Your task to perform on an android device: turn on location history Image 0: 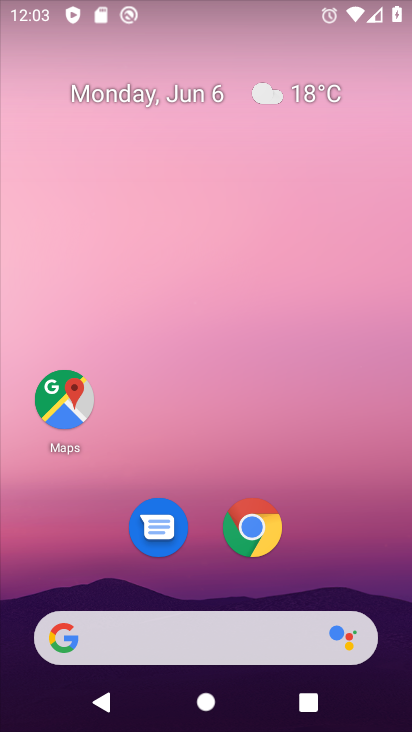
Step 0: drag from (230, 590) to (341, 15)
Your task to perform on an android device: turn on location history Image 1: 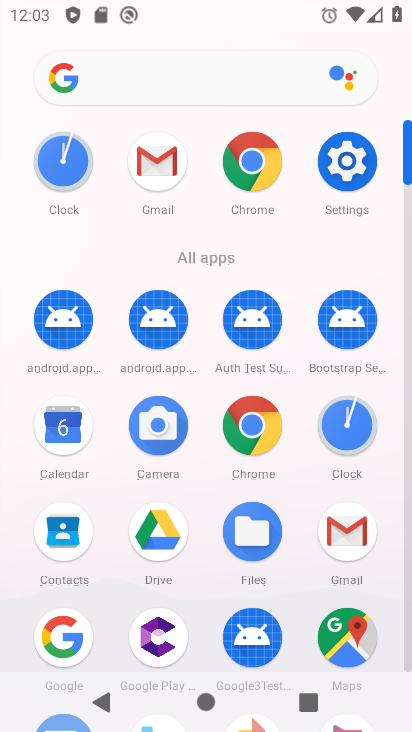
Step 1: click (344, 161)
Your task to perform on an android device: turn on location history Image 2: 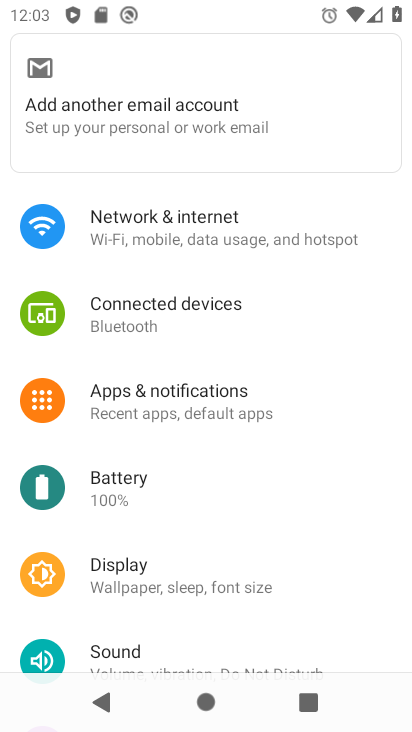
Step 2: drag from (190, 537) to (208, 80)
Your task to perform on an android device: turn on location history Image 3: 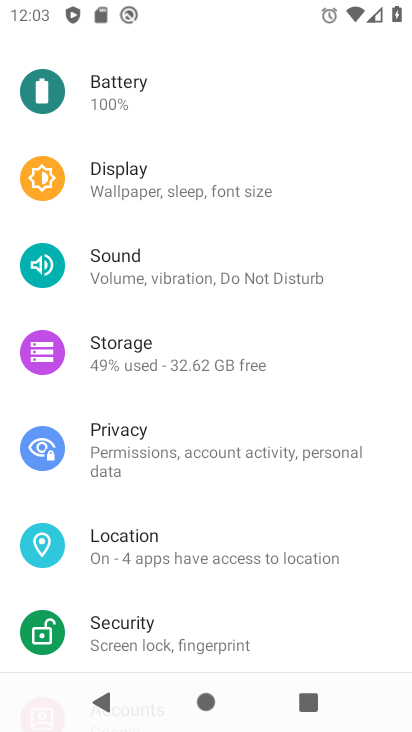
Step 3: click (79, 548)
Your task to perform on an android device: turn on location history Image 4: 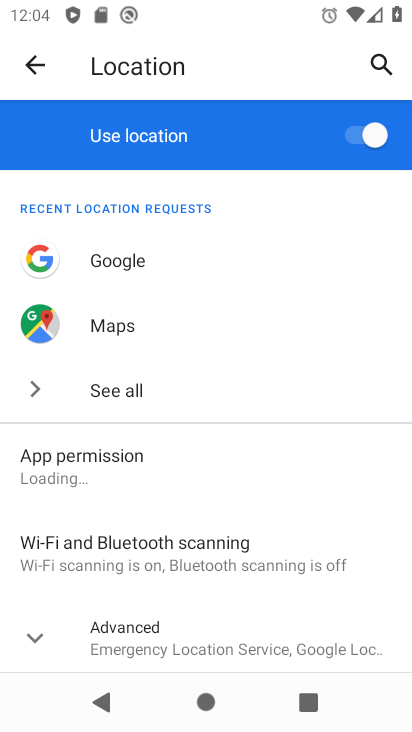
Step 4: click (190, 642)
Your task to perform on an android device: turn on location history Image 5: 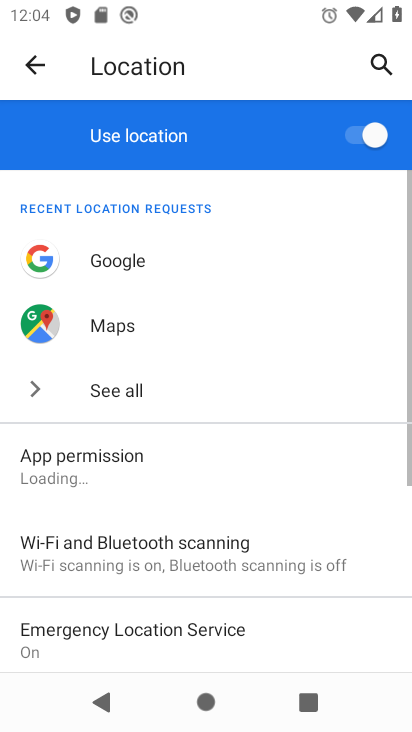
Step 5: drag from (197, 624) to (127, 98)
Your task to perform on an android device: turn on location history Image 6: 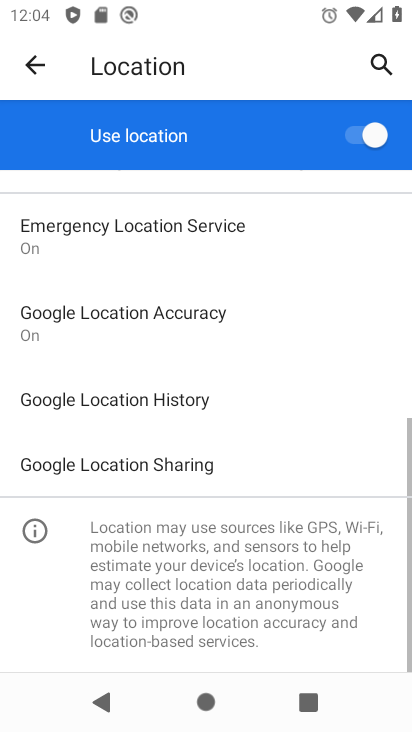
Step 6: click (163, 410)
Your task to perform on an android device: turn on location history Image 7: 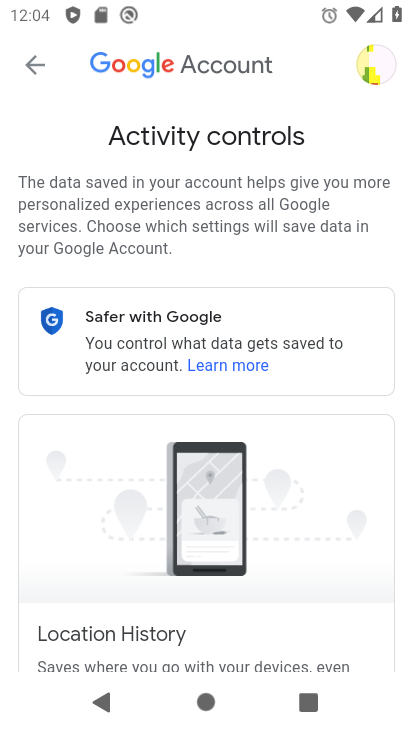
Step 7: drag from (164, 554) to (278, 31)
Your task to perform on an android device: turn on location history Image 8: 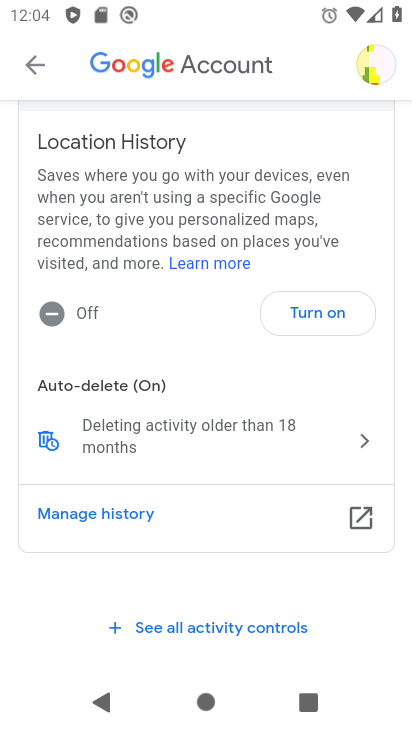
Step 8: click (295, 312)
Your task to perform on an android device: turn on location history Image 9: 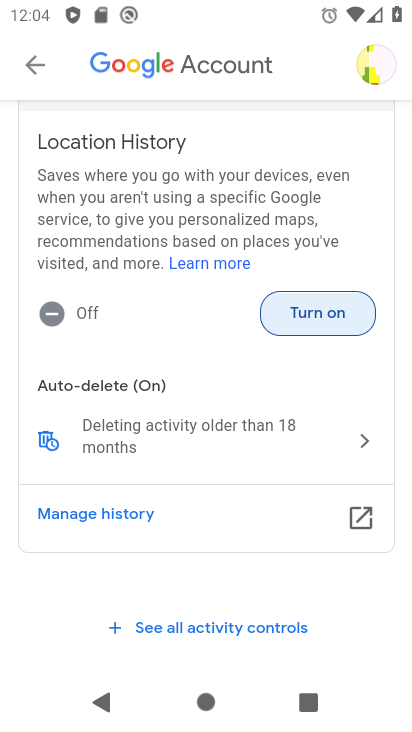
Step 9: click (316, 309)
Your task to perform on an android device: turn on location history Image 10: 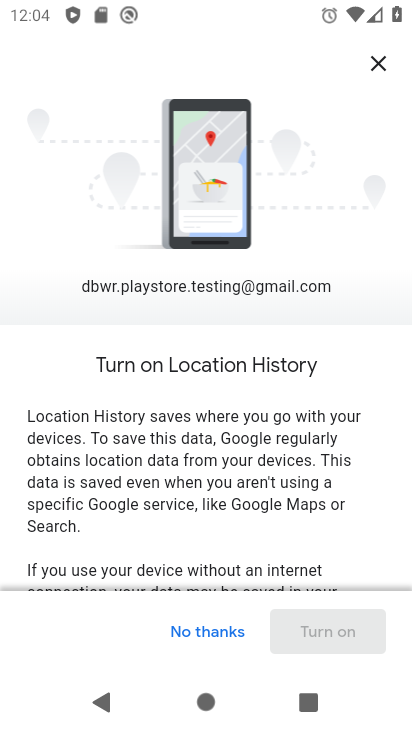
Step 10: drag from (312, 533) to (259, 2)
Your task to perform on an android device: turn on location history Image 11: 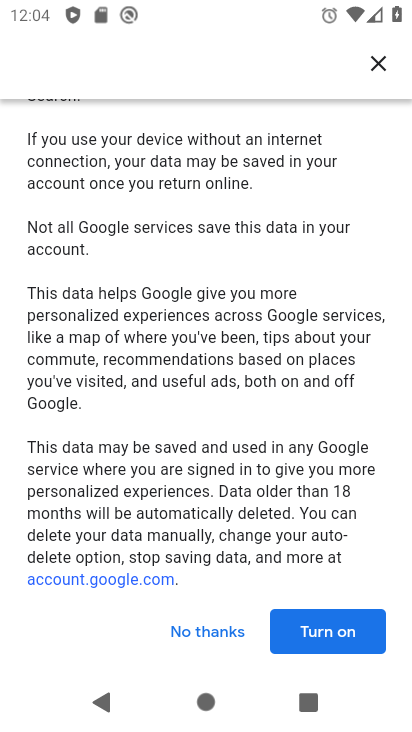
Step 11: click (302, 641)
Your task to perform on an android device: turn on location history Image 12: 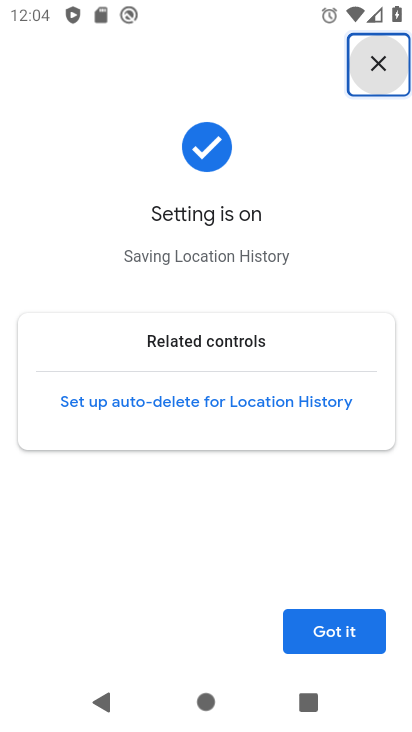
Step 12: click (336, 617)
Your task to perform on an android device: turn on location history Image 13: 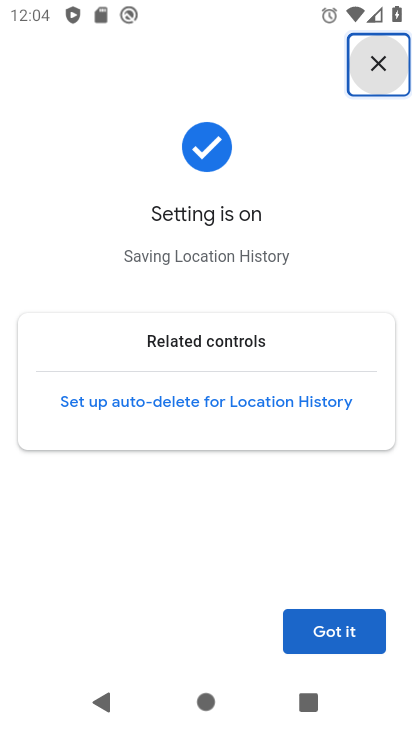
Step 13: task complete